Your task to perform on an android device: change your default location settings in chrome Image 0: 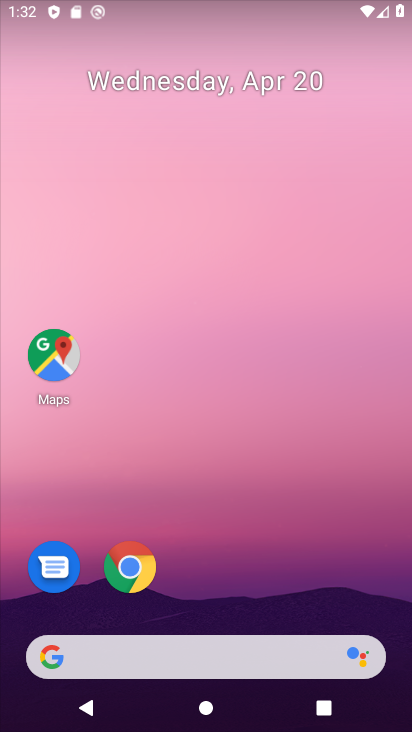
Step 0: click (145, 581)
Your task to perform on an android device: change your default location settings in chrome Image 1: 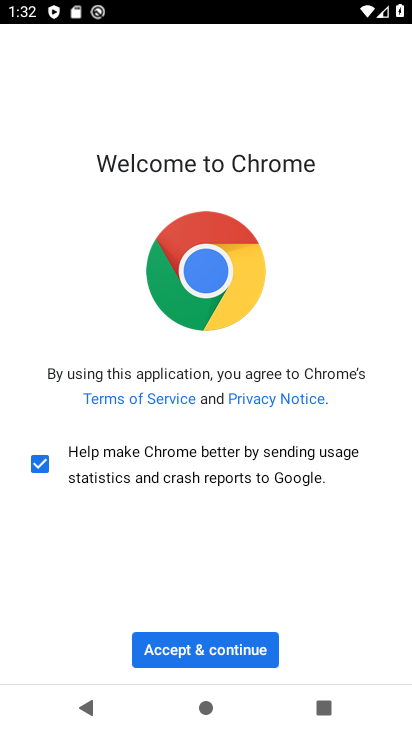
Step 1: click (243, 650)
Your task to perform on an android device: change your default location settings in chrome Image 2: 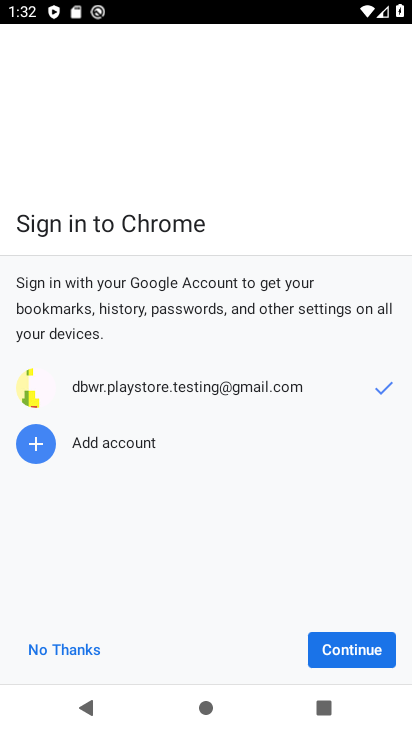
Step 2: click (375, 650)
Your task to perform on an android device: change your default location settings in chrome Image 3: 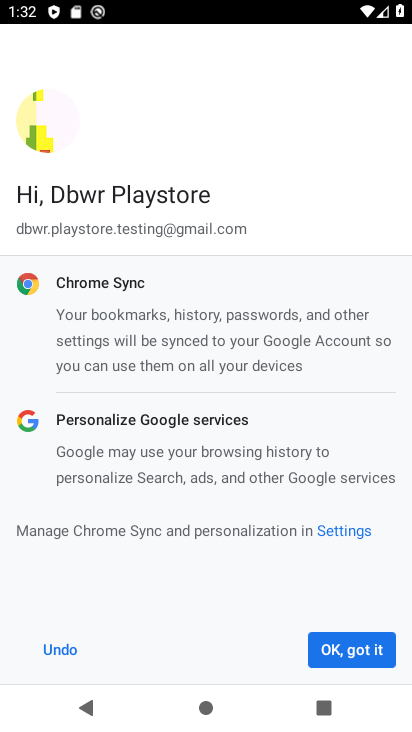
Step 3: click (372, 654)
Your task to perform on an android device: change your default location settings in chrome Image 4: 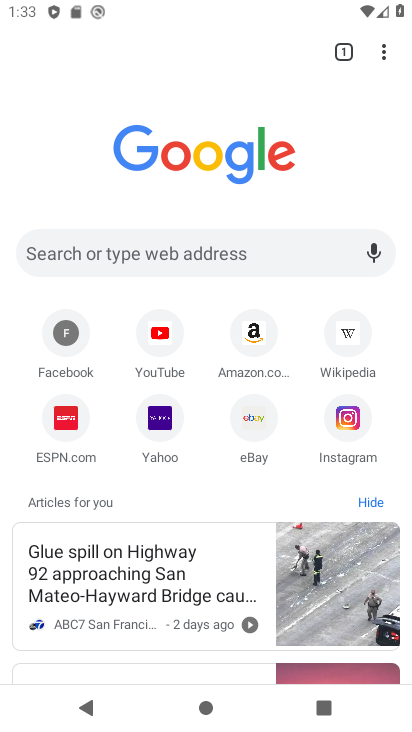
Step 4: drag from (381, 53) to (226, 439)
Your task to perform on an android device: change your default location settings in chrome Image 5: 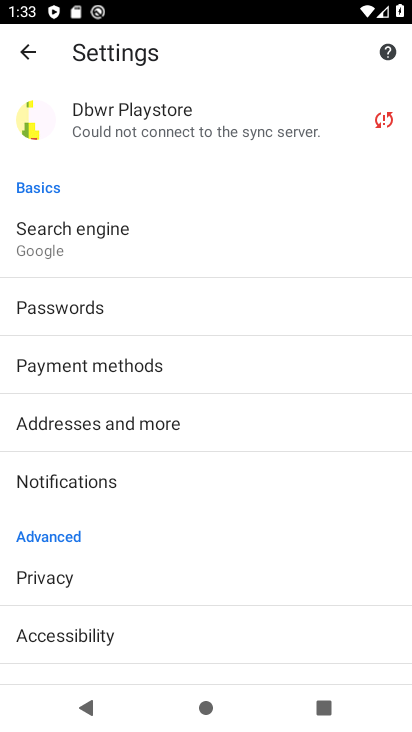
Step 5: drag from (130, 605) to (213, 243)
Your task to perform on an android device: change your default location settings in chrome Image 6: 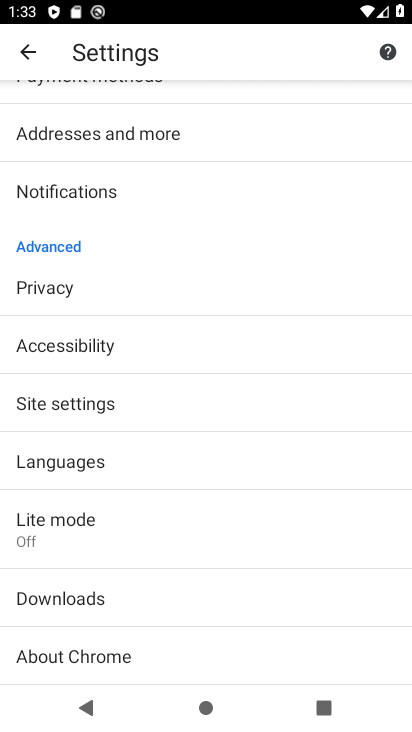
Step 6: click (85, 410)
Your task to perform on an android device: change your default location settings in chrome Image 7: 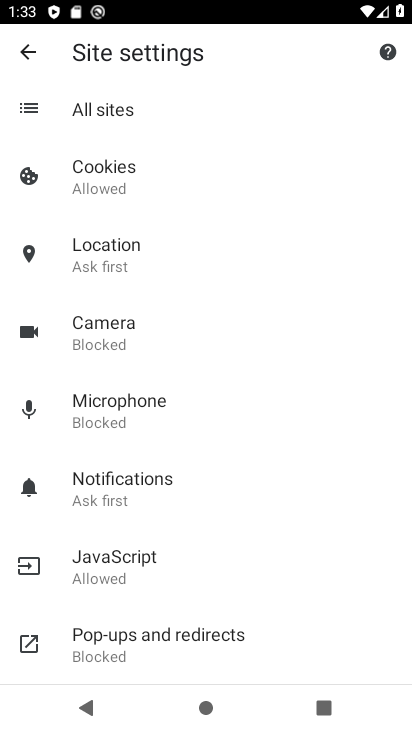
Step 7: click (168, 263)
Your task to perform on an android device: change your default location settings in chrome Image 8: 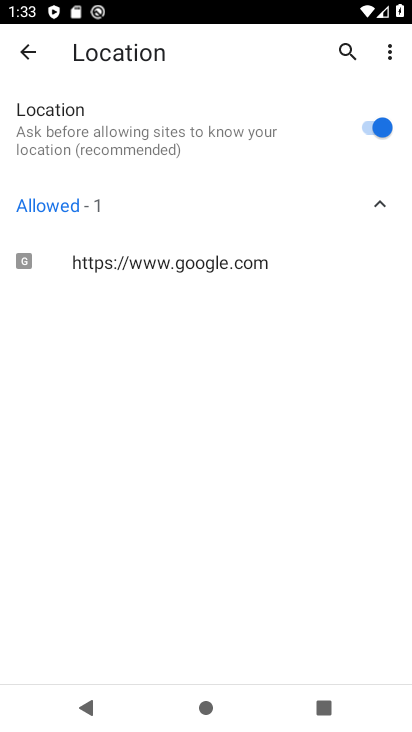
Step 8: task complete